Your task to perform on an android device: see sites visited before in the chrome app Image 0: 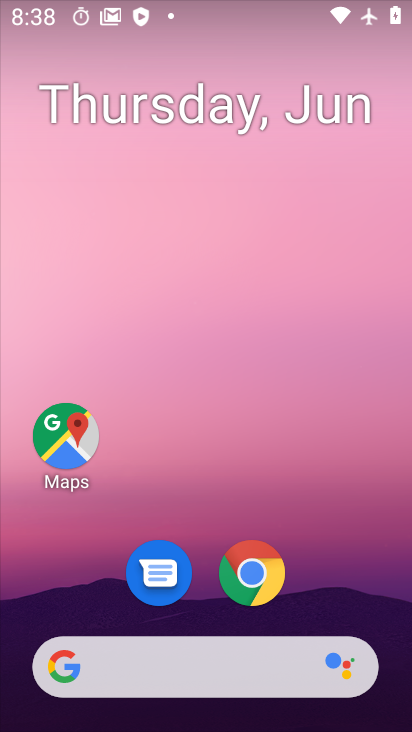
Step 0: click (265, 580)
Your task to perform on an android device: see sites visited before in the chrome app Image 1: 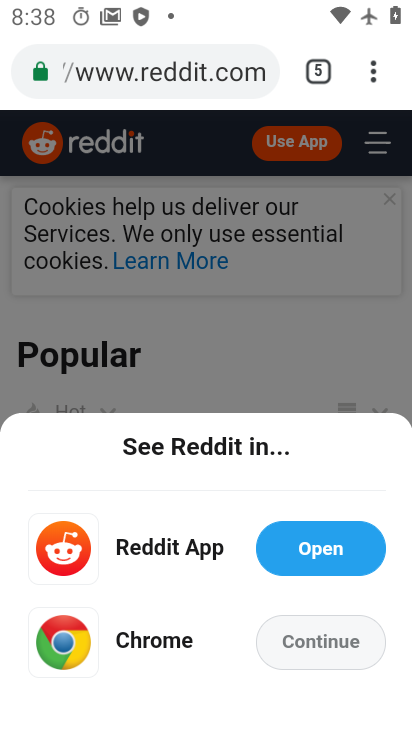
Step 1: click (373, 74)
Your task to perform on an android device: see sites visited before in the chrome app Image 2: 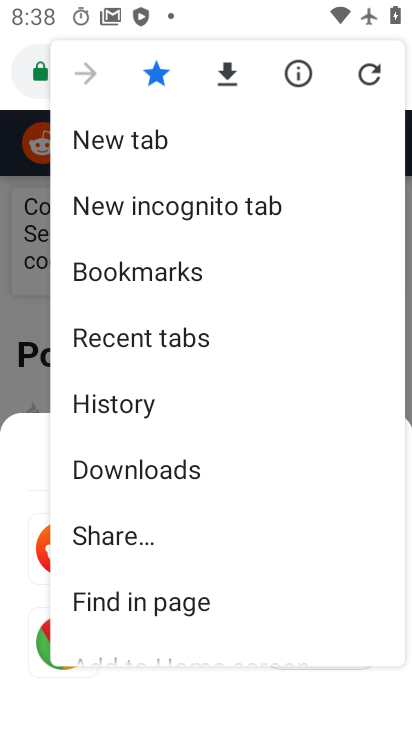
Step 2: click (163, 407)
Your task to perform on an android device: see sites visited before in the chrome app Image 3: 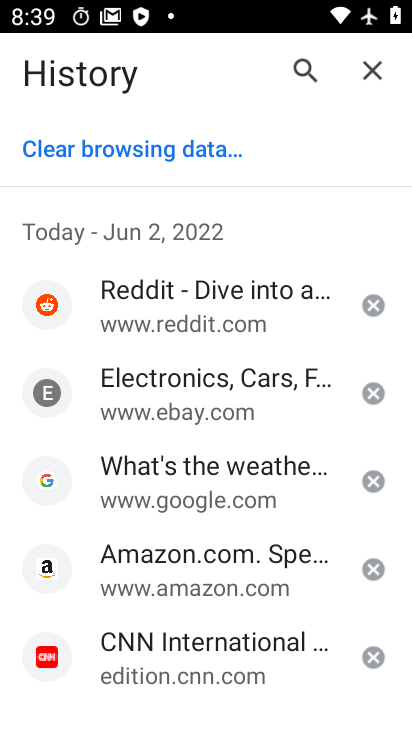
Step 3: task complete